Your task to perform on an android device: open app "NewsBreak: Local News & Alerts" (install if not already installed) and go to login screen Image 0: 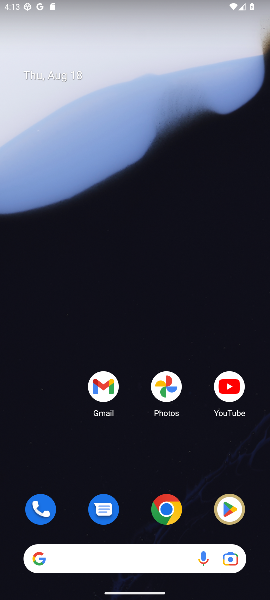
Step 0: click (219, 514)
Your task to perform on an android device: open app "NewsBreak: Local News & Alerts" (install if not already installed) and go to login screen Image 1: 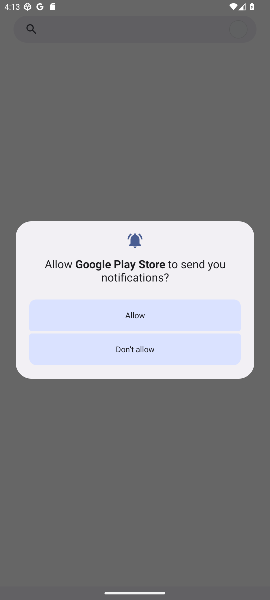
Step 1: click (133, 347)
Your task to perform on an android device: open app "NewsBreak: Local News & Alerts" (install if not already installed) and go to login screen Image 2: 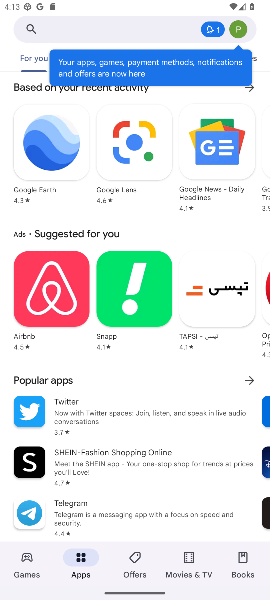
Step 2: click (100, 23)
Your task to perform on an android device: open app "NewsBreak: Local News & Alerts" (install if not already installed) and go to login screen Image 3: 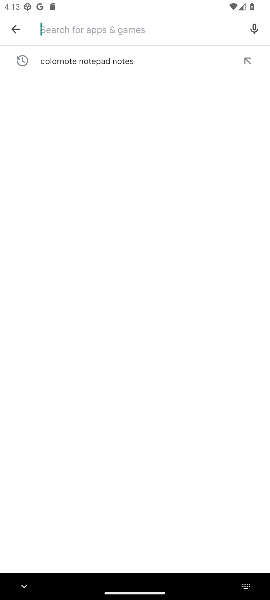
Step 3: type "news break"
Your task to perform on an android device: open app "NewsBreak: Local News & Alerts" (install if not already installed) and go to login screen Image 4: 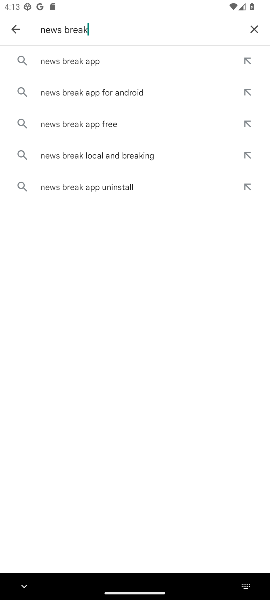
Step 4: click (106, 67)
Your task to perform on an android device: open app "NewsBreak: Local News & Alerts" (install if not already installed) and go to login screen Image 5: 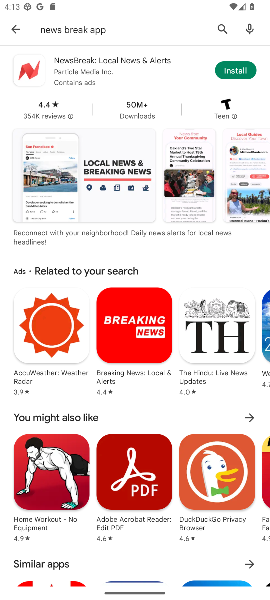
Step 5: click (235, 76)
Your task to perform on an android device: open app "NewsBreak: Local News & Alerts" (install if not already installed) and go to login screen Image 6: 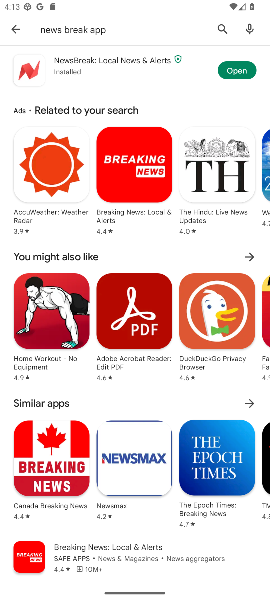
Step 6: click (235, 69)
Your task to perform on an android device: open app "NewsBreak: Local News & Alerts" (install if not already installed) and go to login screen Image 7: 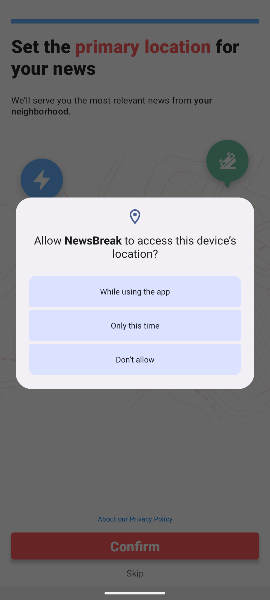
Step 7: click (146, 359)
Your task to perform on an android device: open app "NewsBreak: Local News & Alerts" (install if not already installed) and go to login screen Image 8: 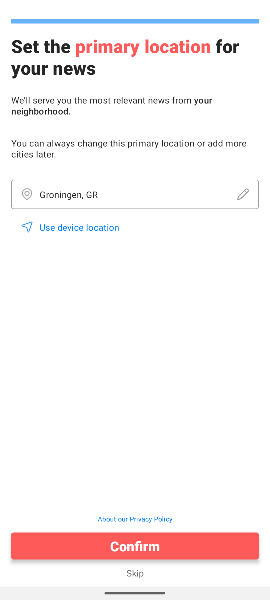
Step 8: click (130, 572)
Your task to perform on an android device: open app "NewsBreak: Local News & Alerts" (install if not already installed) and go to login screen Image 9: 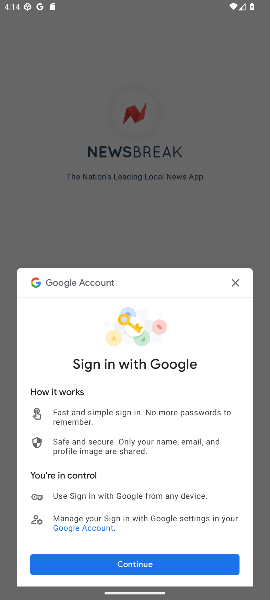
Step 9: click (234, 283)
Your task to perform on an android device: open app "NewsBreak: Local News & Alerts" (install if not already installed) and go to login screen Image 10: 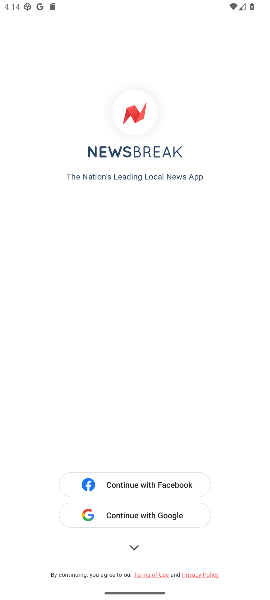
Step 10: click (117, 550)
Your task to perform on an android device: open app "NewsBreak: Local News & Alerts" (install if not already installed) and go to login screen Image 11: 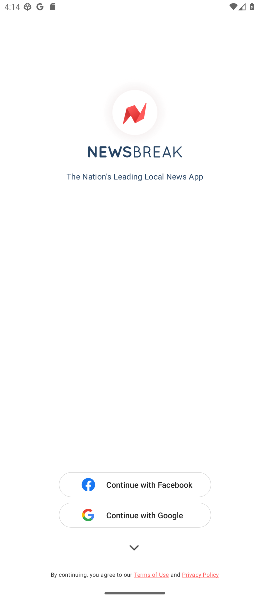
Step 11: click (131, 549)
Your task to perform on an android device: open app "NewsBreak: Local News & Alerts" (install if not already installed) and go to login screen Image 12: 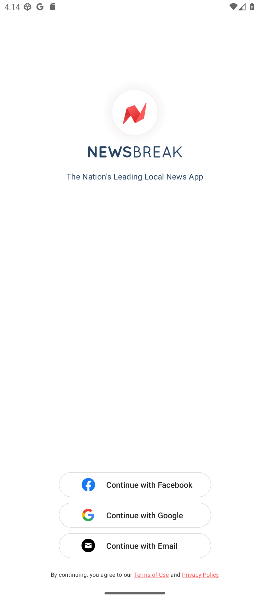
Step 12: click (131, 549)
Your task to perform on an android device: open app "NewsBreak: Local News & Alerts" (install if not already installed) and go to login screen Image 13: 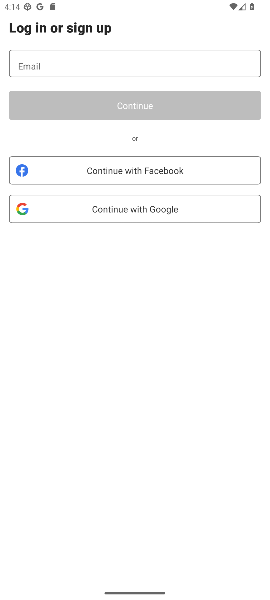
Step 13: task complete